Your task to perform on an android device: Go to network settings Image 0: 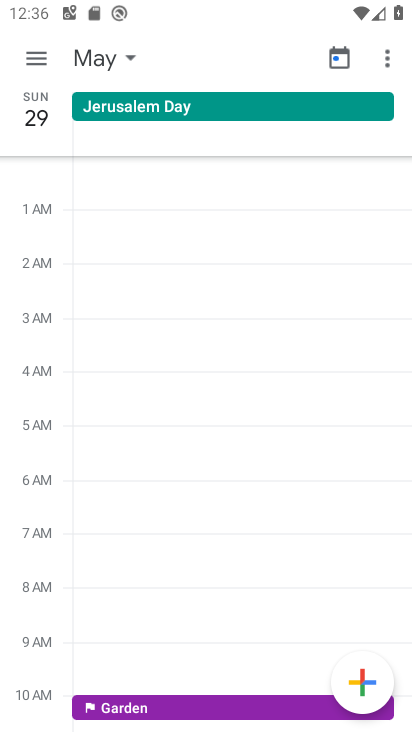
Step 0: press home button
Your task to perform on an android device: Go to network settings Image 1: 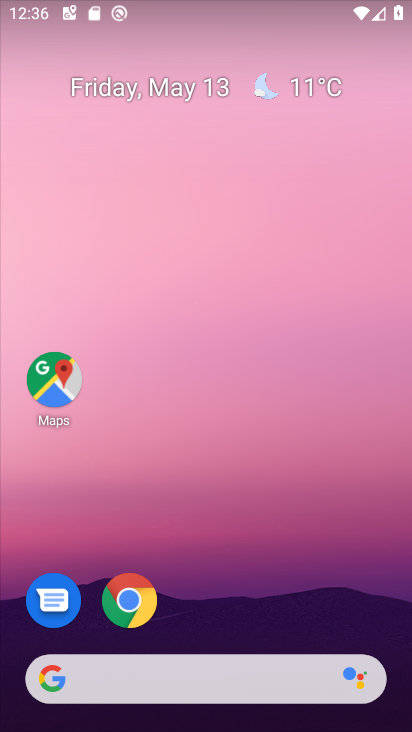
Step 1: drag from (213, 589) to (252, 83)
Your task to perform on an android device: Go to network settings Image 2: 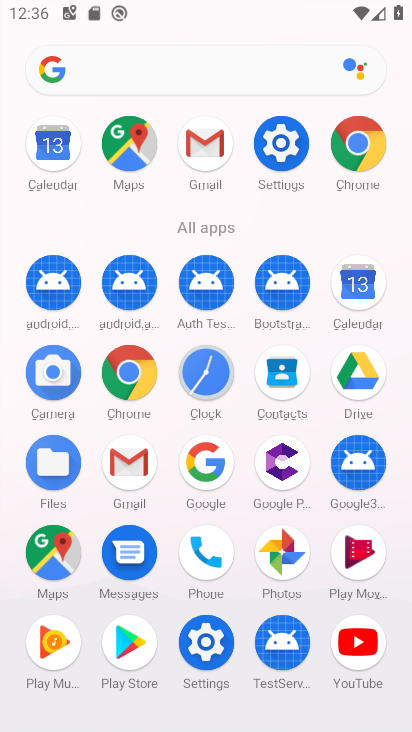
Step 2: click (277, 154)
Your task to perform on an android device: Go to network settings Image 3: 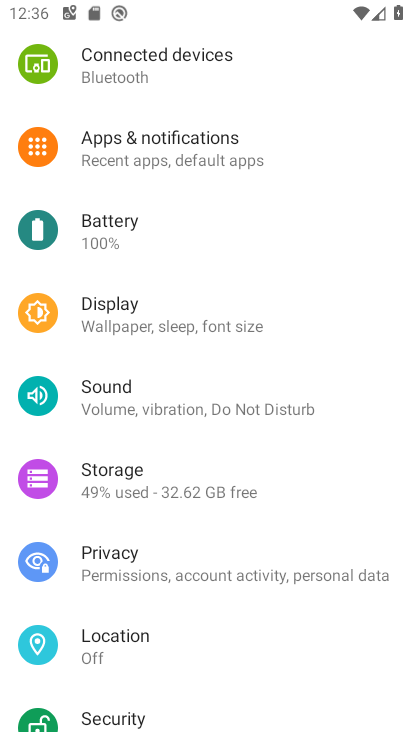
Step 3: drag from (189, 107) to (173, 452)
Your task to perform on an android device: Go to network settings Image 4: 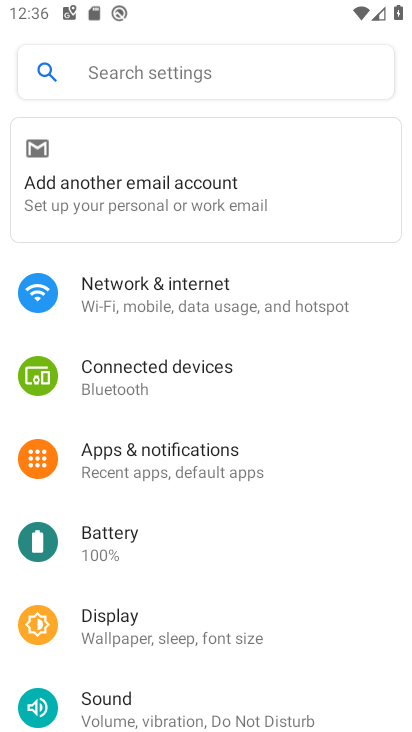
Step 4: click (189, 292)
Your task to perform on an android device: Go to network settings Image 5: 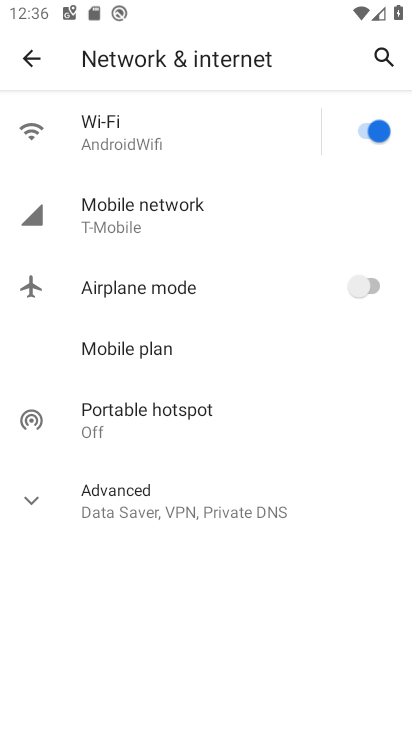
Step 5: click (197, 202)
Your task to perform on an android device: Go to network settings Image 6: 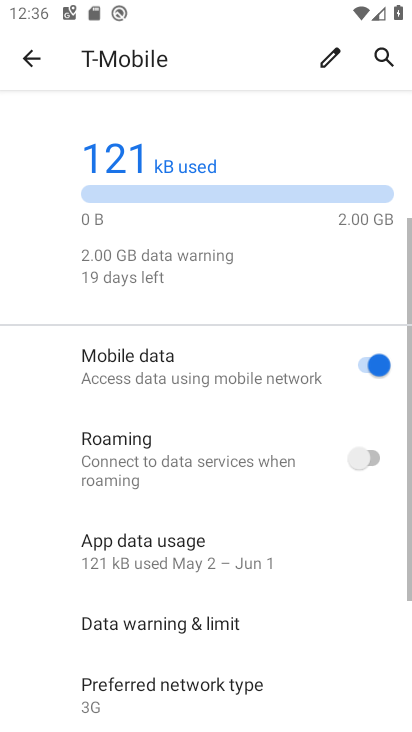
Step 6: task complete